Your task to perform on an android device: find snoozed emails in the gmail app Image 0: 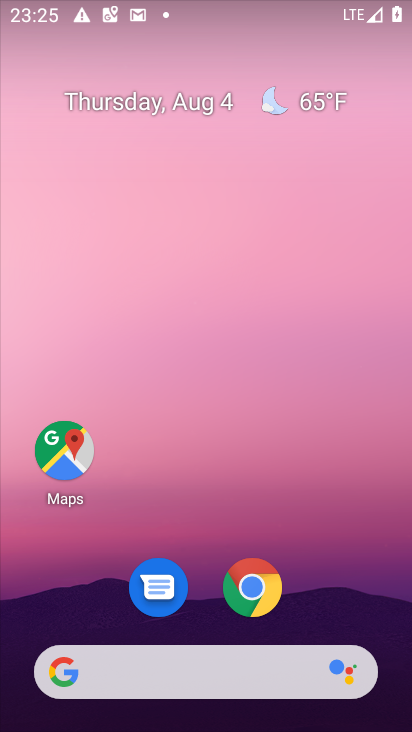
Step 0: drag from (241, 609) to (258, 195)
Your task to perform on an android device: find snoozed emails in the gmail app Image 1: 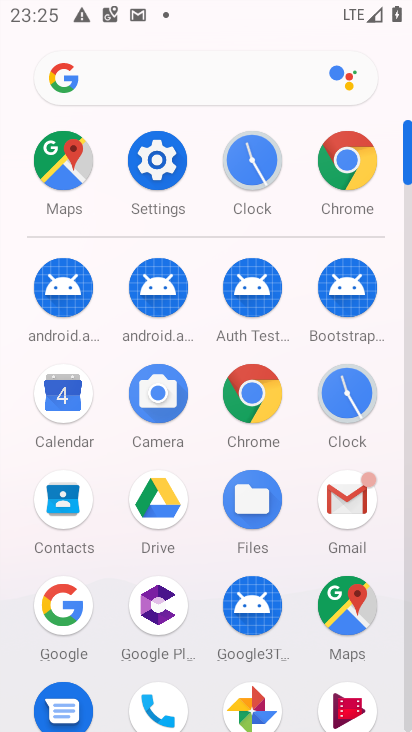
Step 1: click (352, 494)
Your task to perform on an android device: find snoozed emails in the gmail app Image 2: 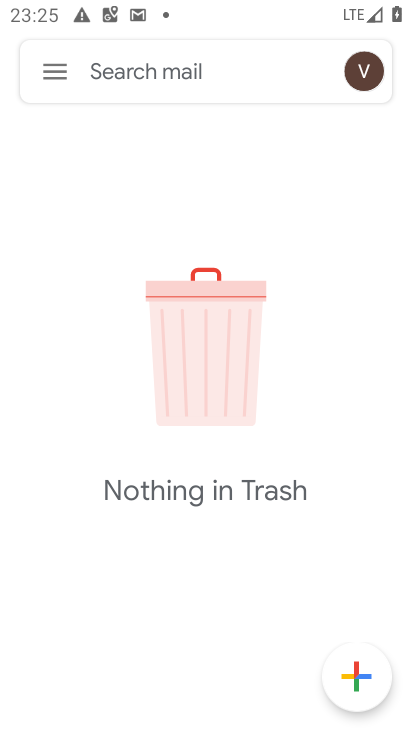
Step 2: click (27, 66)
Your task to perform on an android device: find snoozed emails in the gmail app Image 3: 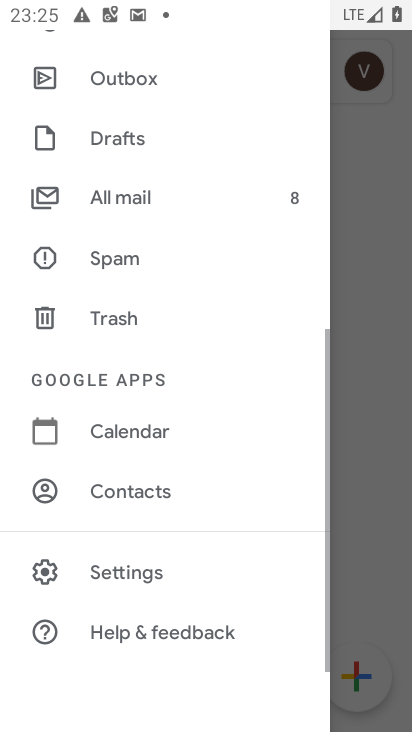
Step 3: drag from (140, 154) to (142, 525)
Your task to perform on an android device: find snoozed emails in the gmail app Image 4: 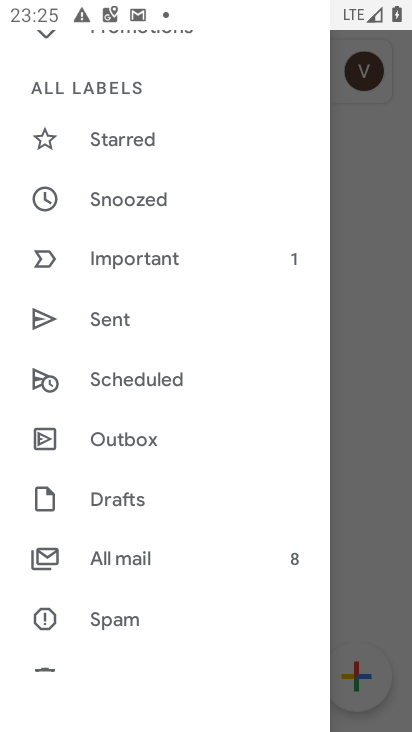
Step 4: drag from (145, 54) to (120, 486)
Your task to perform on an android device: find snoozed emails in the gmail app Image 5: 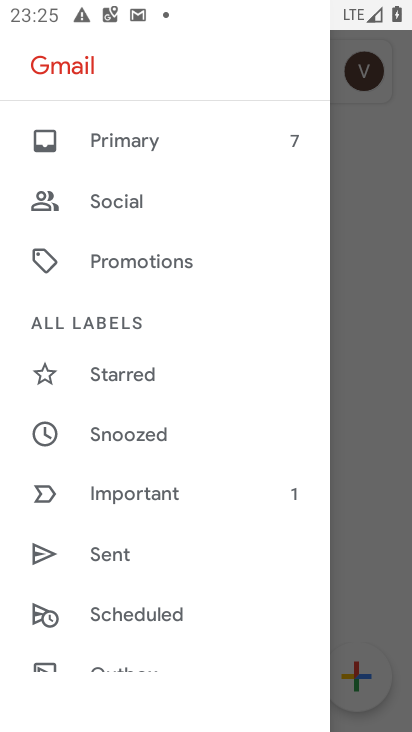
Step 5: click (108, 429)
Your task to perform on an android device: find snoozed emails in the gmail app Image 6: 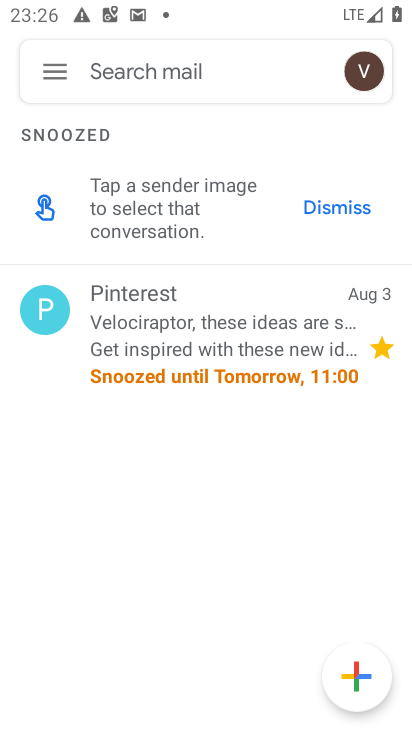
Step 6: task complete